Your task to perform on an android device: Go to notification settings Image 0: 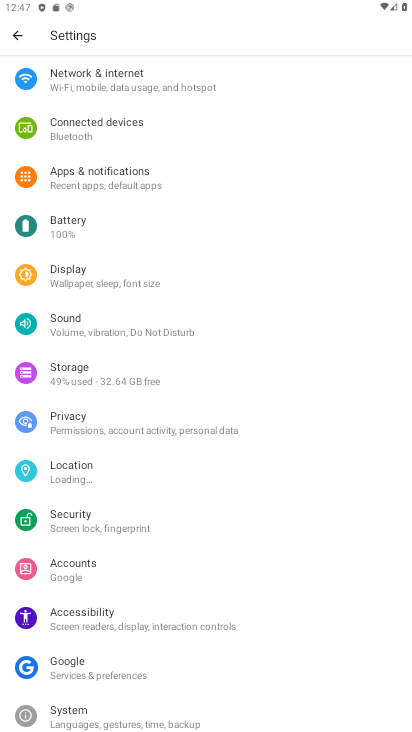
Step 0: click (116, 184)
Your task to perform on an android device: Go to notification settings Image 1: 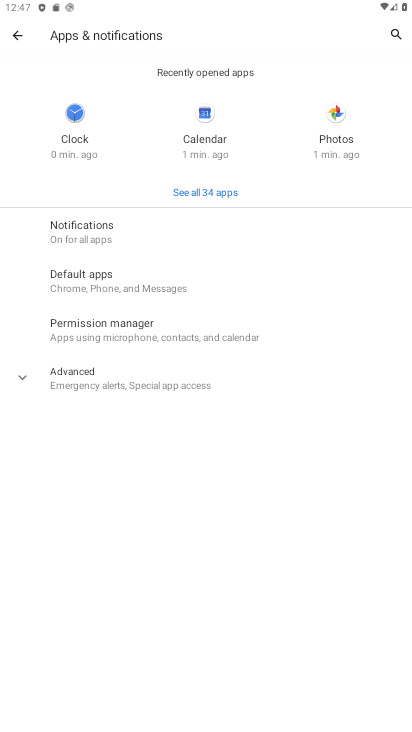
Step 1: click (124, 244)
Your task to perform on an android device: Go to notification settings Image 2: 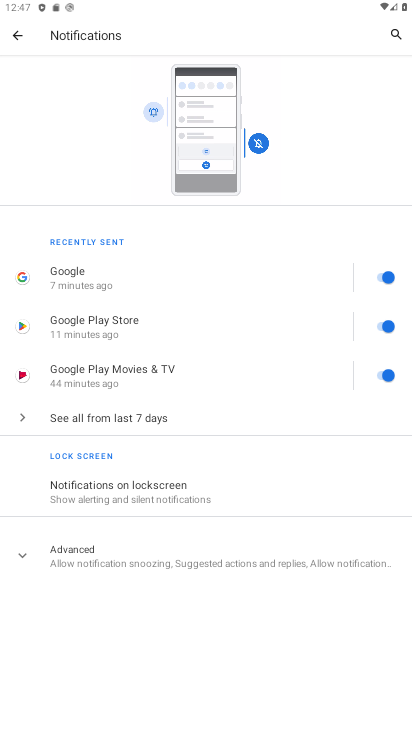
Step 2: task complete